Your task to perform on an android device: change alarm snooze length Image 0: 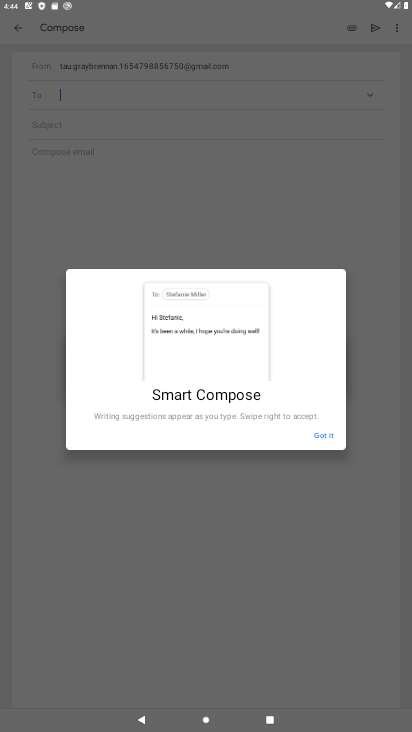
Step 0: press home button
Your task to perform on an android device: change alarm snooze length Image 1: 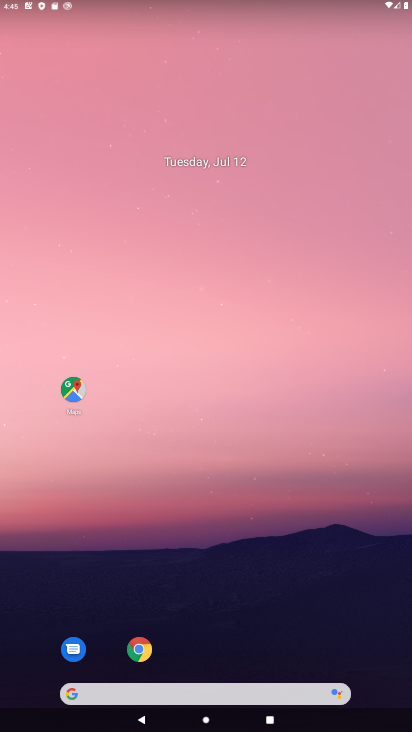
Step 1: drag from (226, 696) to (188, 194)
Your task to perform on an android device: change alarm snooze length Image 2: 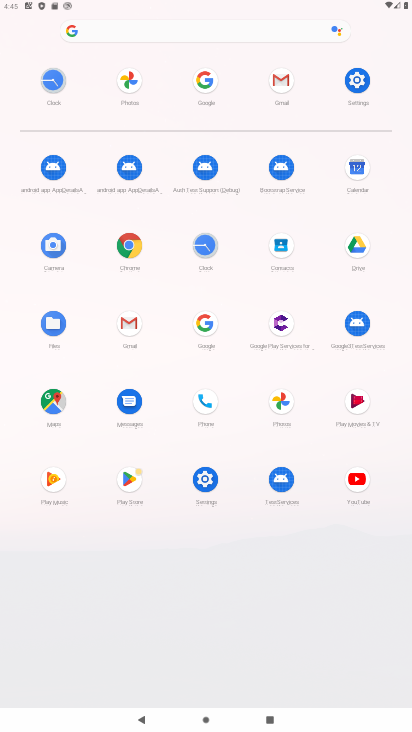
Step 2: click (204, 244)
Your task to perform on an android device: change alarm snooze length Image 3: 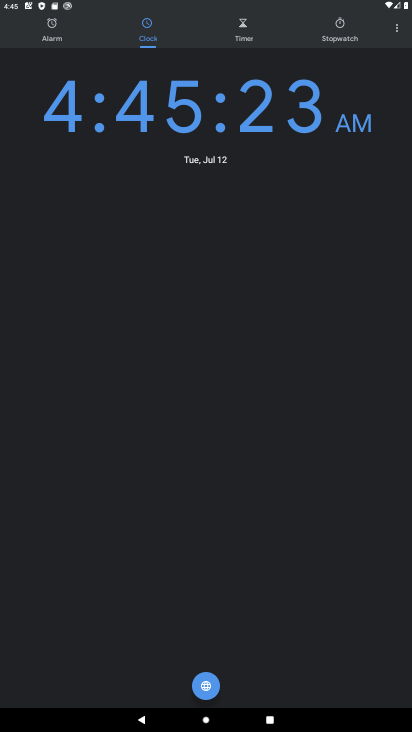
Step 3: click (398, 26)
Your task to perform on an android device: change alarm snooze length Image 4: 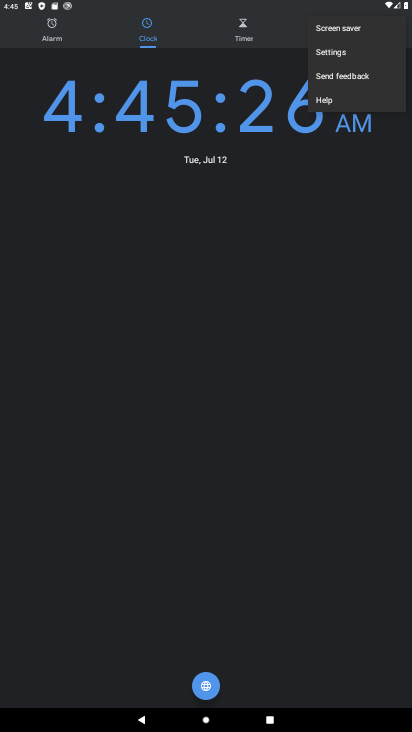
Step 4: click (337, 56)
Your task to perform on an android device: change alarm snooze length Image 5: 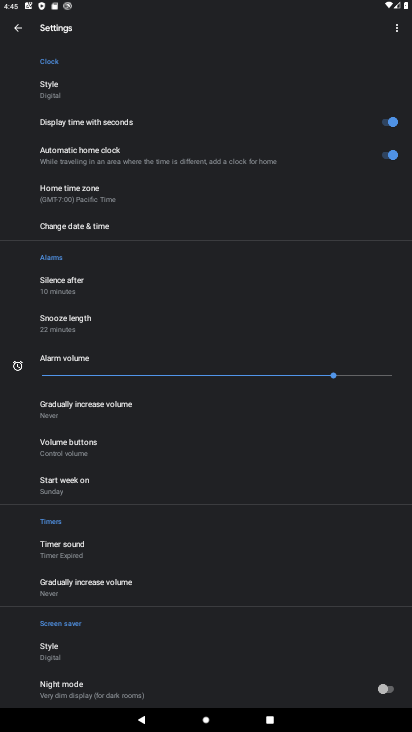
Step 5: click (90, 326)
Your task to perform on an android device: change alarm snooze length Image 6: 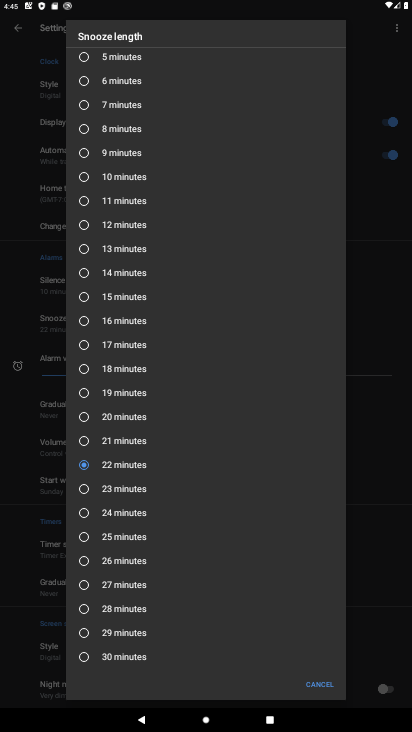
Step 6: click (83, 301)
Your task to perform on an android device: change alarm snooze length Image 7: 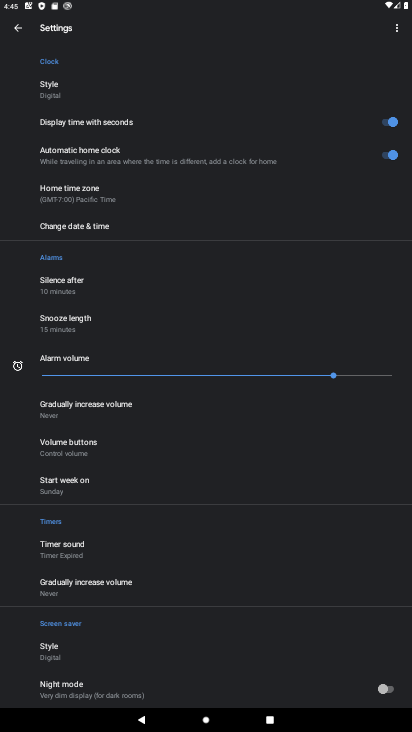
Step 7: task complete